Your task to perform on an android device: Go to Wikipedia Image 0: 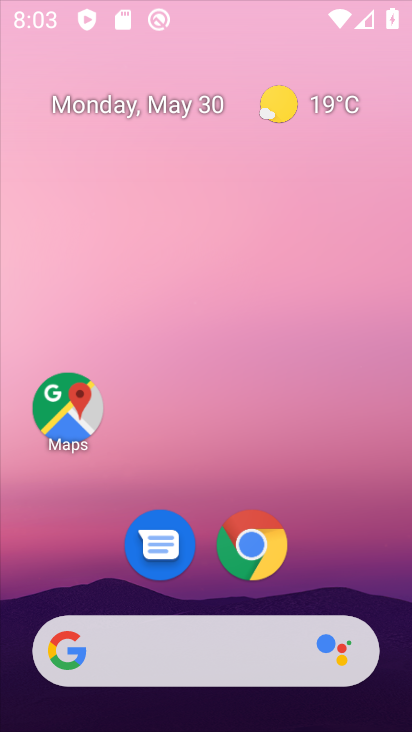
Step 0: click (255, 538)
Your task to perform on an android device: Go to Wikipedia Image 1: 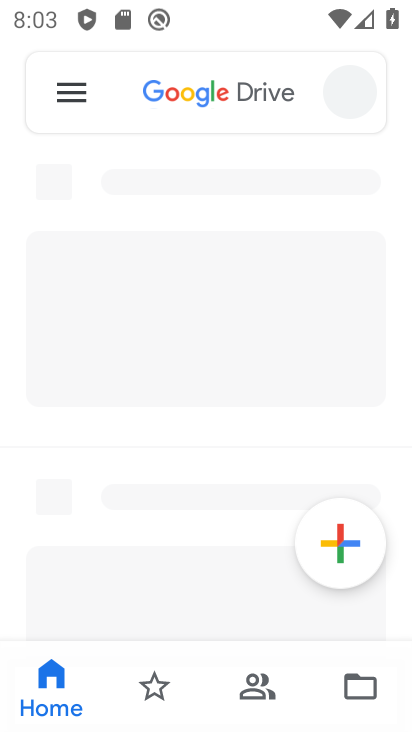
Step 1: click (255, 538)
Your task to perform on an android device: Go to Wikipedia Image 2: 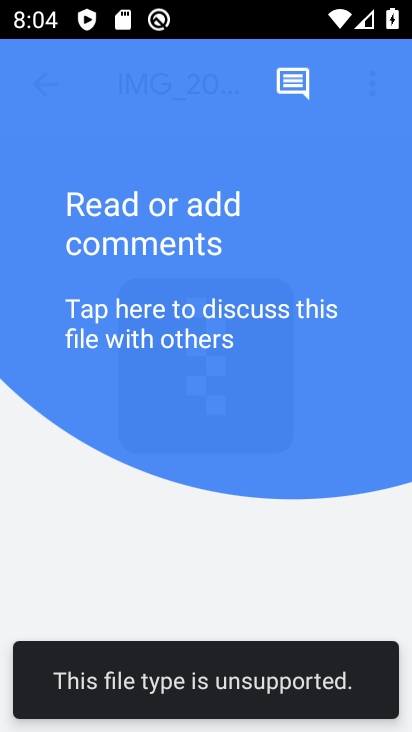
Step 2: press home button
Your task to perform on an android device: Go to Wikipedia Image 3: 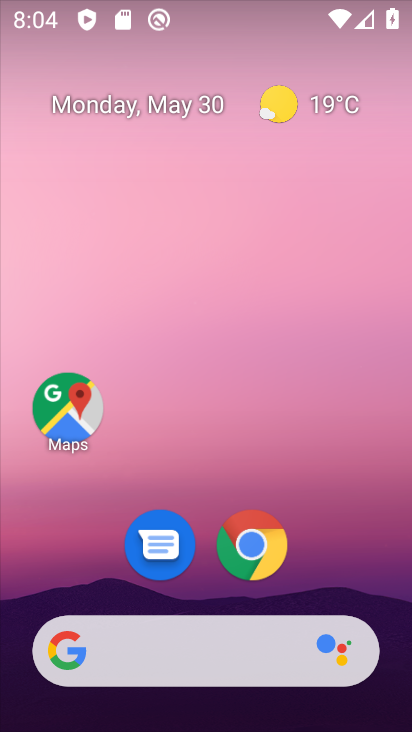
Step 3: click (259, 549)
Your task to perform on an android device: Go to Wikipedia Image 4: 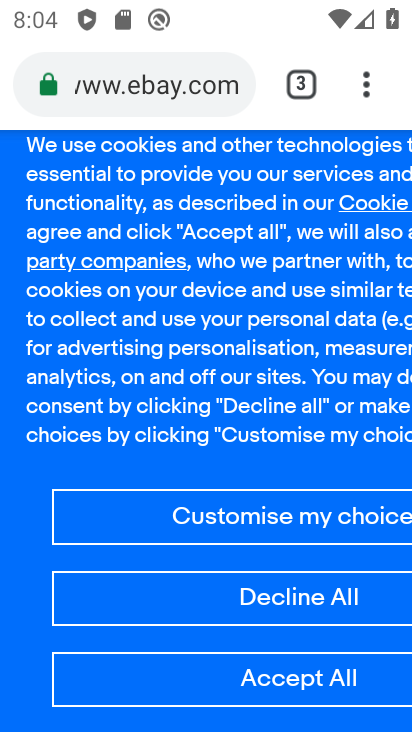
Step 4: click (308, 78)
Your task to perform on an android device: Go to Wikipedia Image 5: 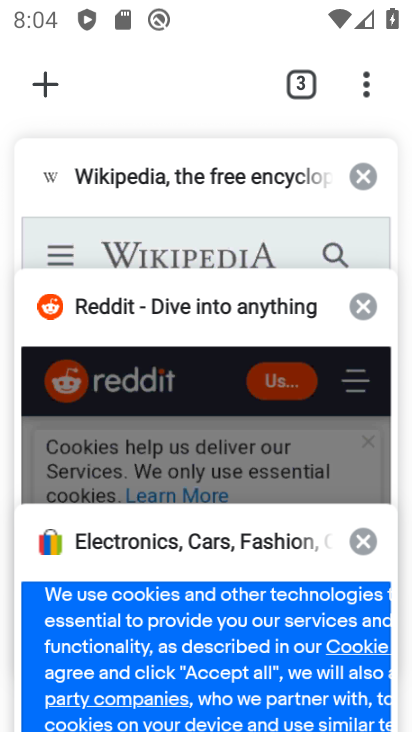
Step 5: click (201, 164)
Your task to perform on an android device: Go to Wikipedia Image 6: 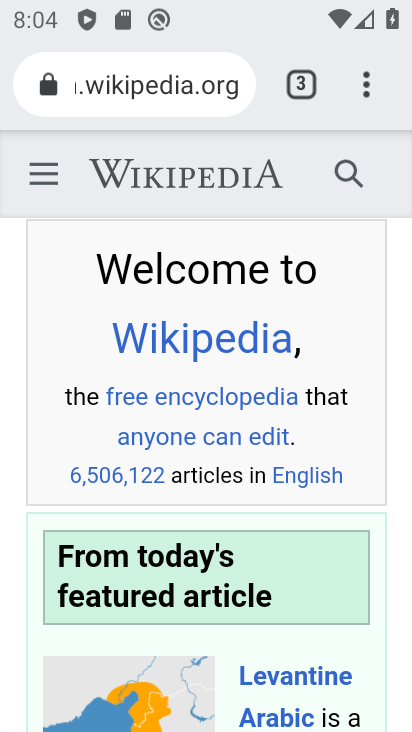
Step 6: task complete